Your task to perform on an android device: Open my contact list Image 0: 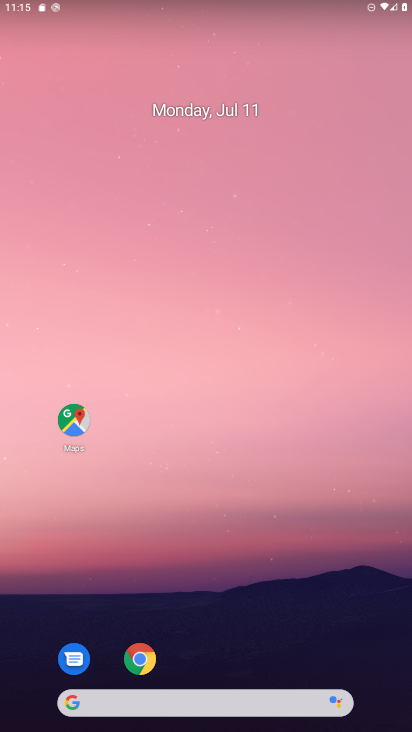
Step 0: drag from (373, 613) to (261, 58)
Your task to perform on an android device: Open my contact list Image 1: 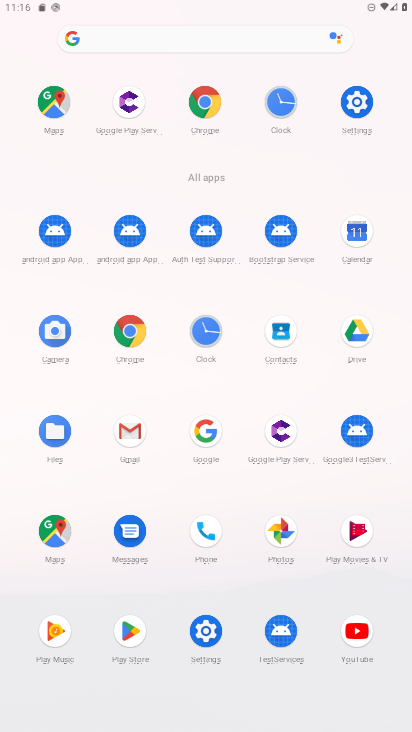
Step 1: click (288, 340)
Your task to perform on an android device: Open my contact list Image 2: 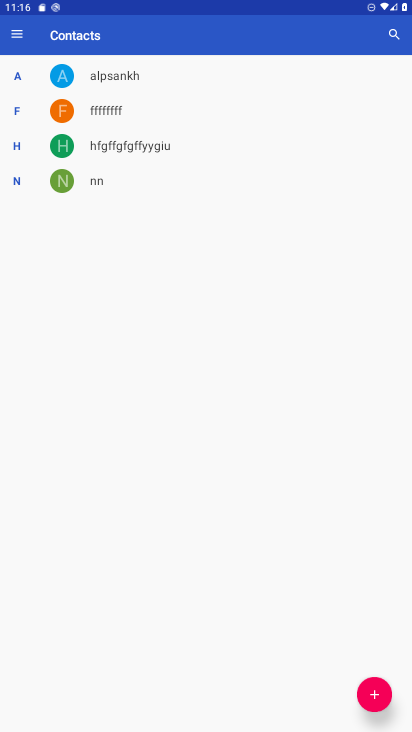
Step 2: task complete